Your task to perform on an android device: Set the phone to "Do not disturb". Image 0: 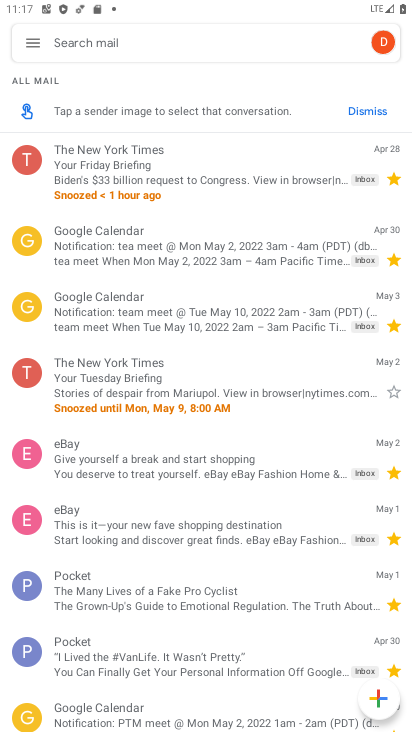
Step 0: press home button
Your task to perform on an android device: Set the phone to "Do not disturb". Image 1: 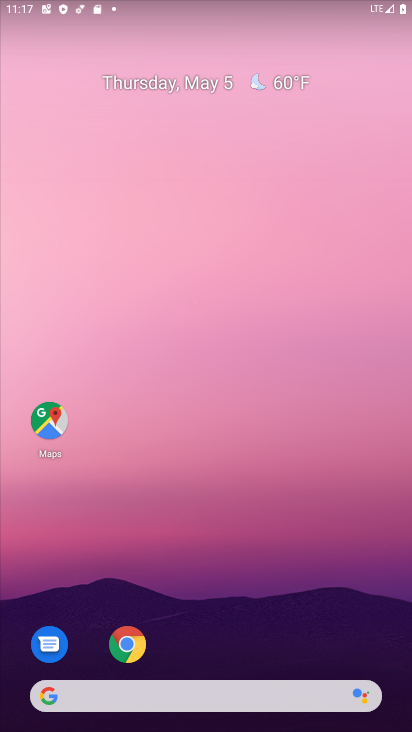
Step 1: drag from (397, 621) to (401, 109)
Your task to perform on an android device: Set the phone to "Do not disturb". Image 2: 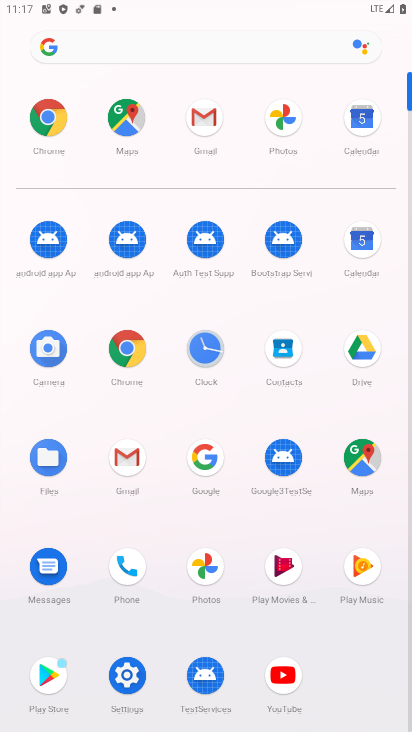
Step 2: click (138, 678)
Your task to perform on an android device: Set the phone to "Do not disturb". Image 3: 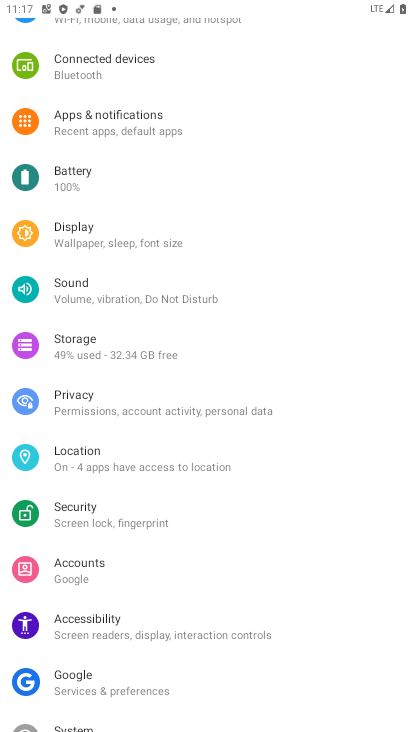
Step 3: click (154, 294)
Your task to perform on an android device: Set the phone to "Do not disturb". Image 4: 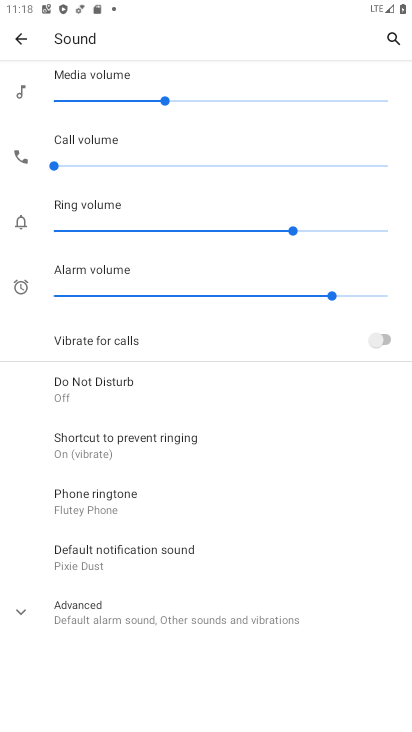
Step 4: click (131, 380)
Your task to perform on an android device: Set the phone to "Do not disturb". Image 5: 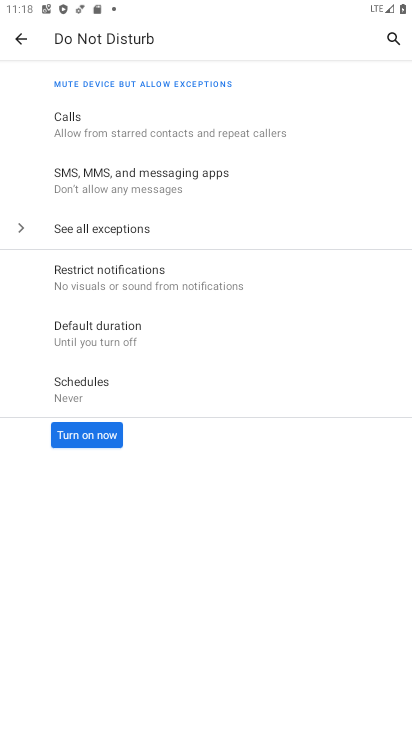
Step 5: click (76, 436)
Your task to perform on an android device: Set the phone to "Do not disturb". Image 6: 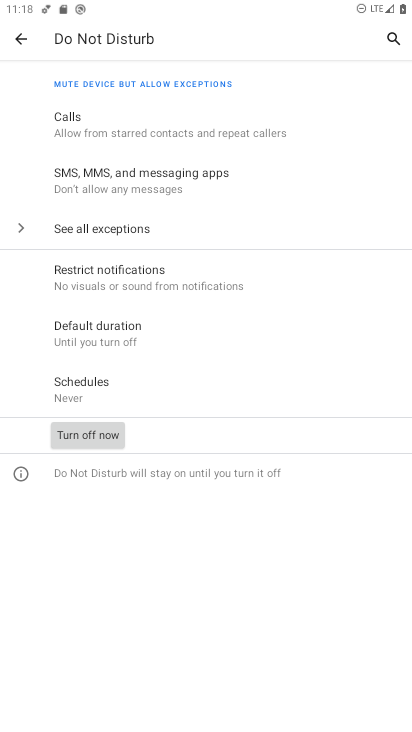
Step 6: task complete